Your task to perform on an android device: Find coffee shops on Maps Image 0: 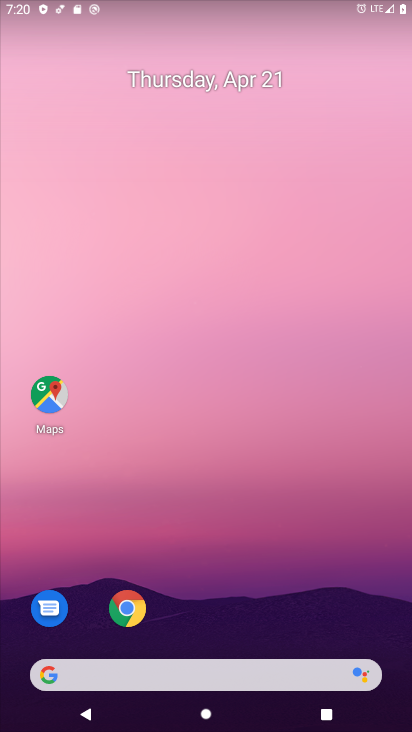
Step 0: click (57, 397)
Your task to perform on an android device: Find coffee shops on Maps Image 1: 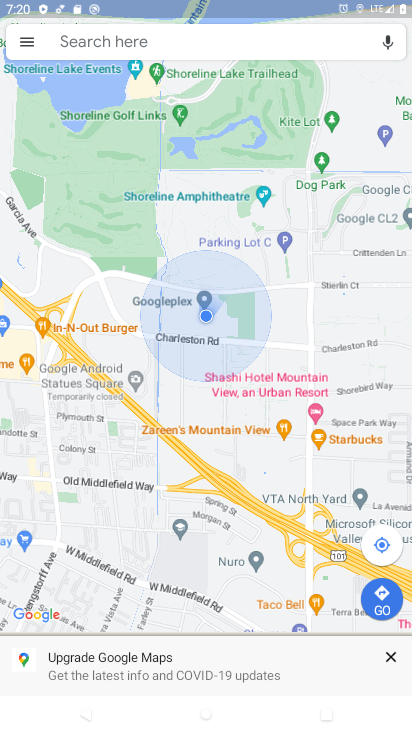
Step 1: click (199, 37)
Your task to perform on an android device: Find coffee shops on Maps Image 2: 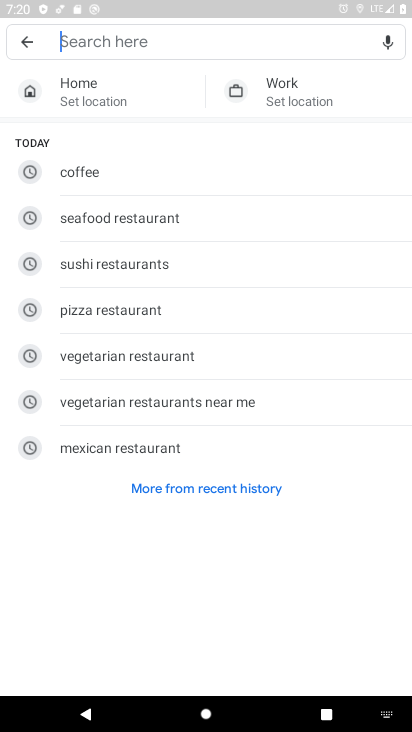
Step 2: type "coffee shop"
Your task to perform on an android device: Find coffee shops on Maps Image 3: 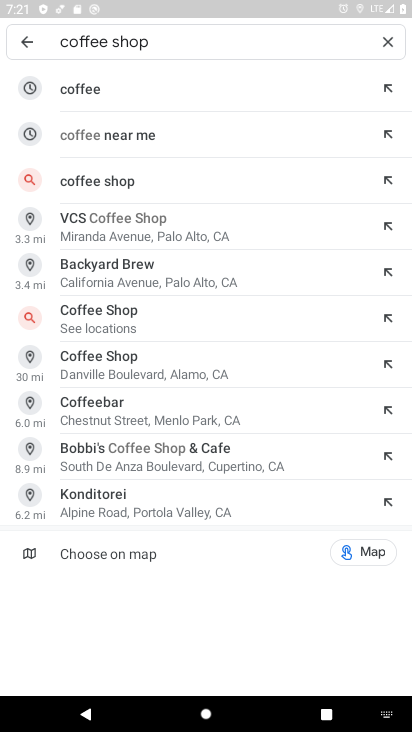
Step 3: click (115, 179)
Your task to perform on an android device: Find coffee shops on Maps Image 4: 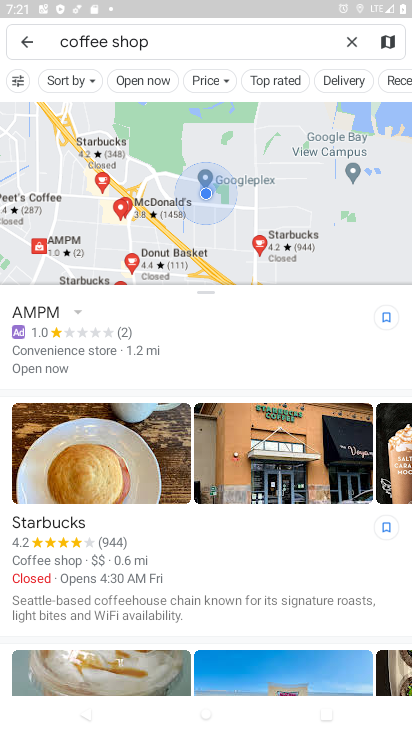
Step 4: task complete